Your task to perform on an android device: toggle translation in the chrome app Image 0: 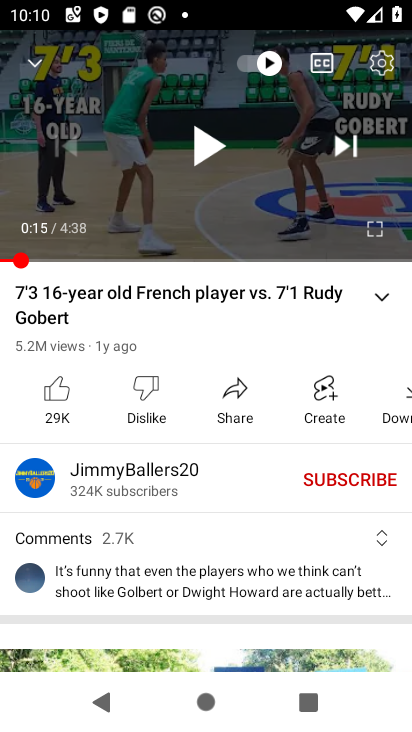
Step 0: press home button
Your task to perform on an android device: toggle translation in the chrome app Image 1: 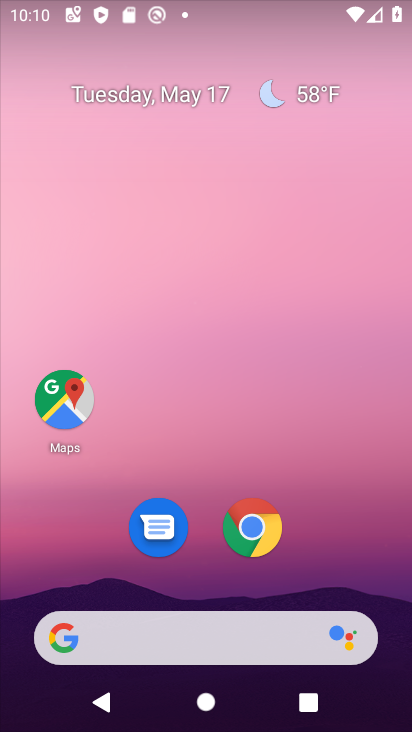
Step 1: click (270, 539)
Your task to perform on an android device: toggle translation in the chrome app Image 2: 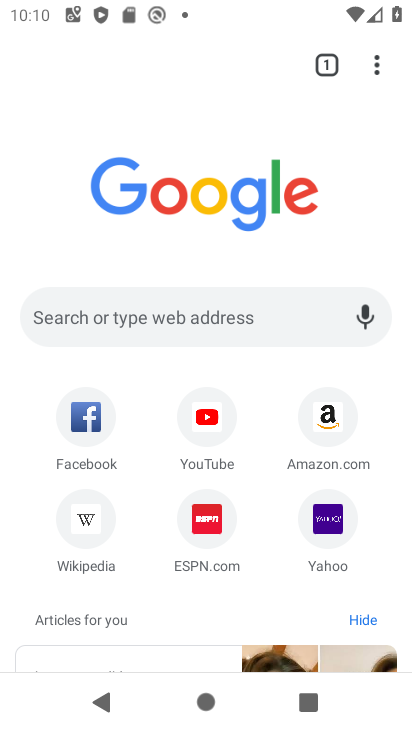
Step 2: click (382, 63)
Your task to perform on an android device: toggle translation in the chrome app Image 3: 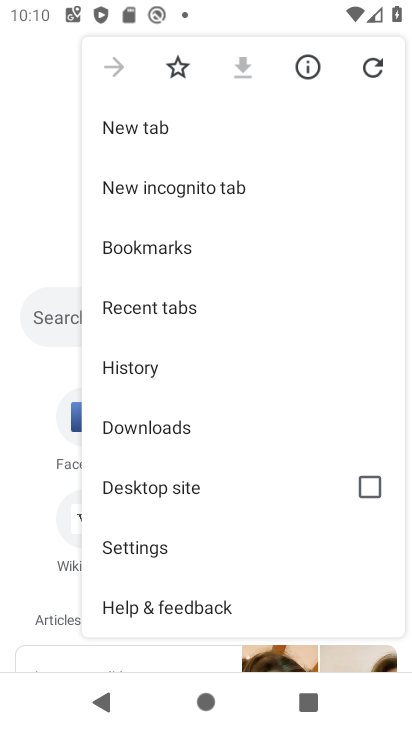
Step 3: drag from (190, 499) to (193, 201)
Your task to perform on an android device: toggle translation in the chrome app Image 4: 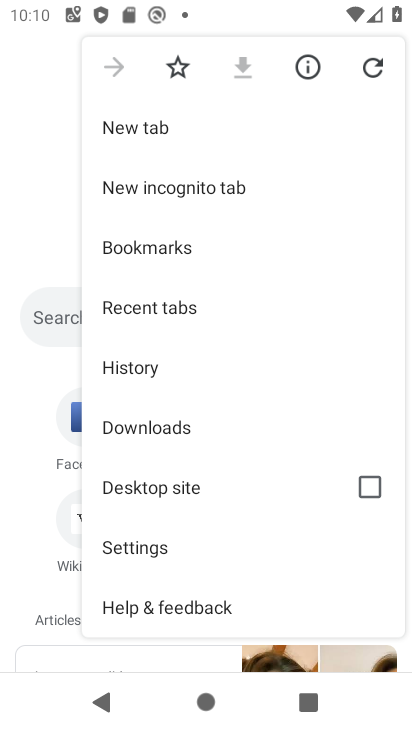
Step 4: click (130, 555)
Your task to perform on an android device: toggle translation in the chrome app Image 5: 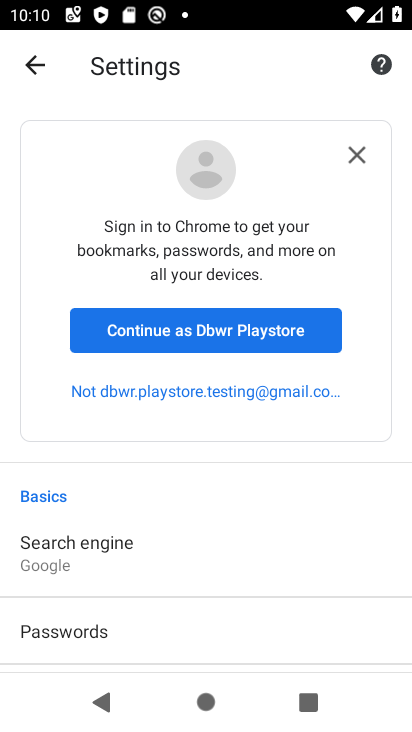
Step 5: drag from (130, 555) to (139, 147)
Your task to perform on an android device: toggle translation in the chrome app Image 6: 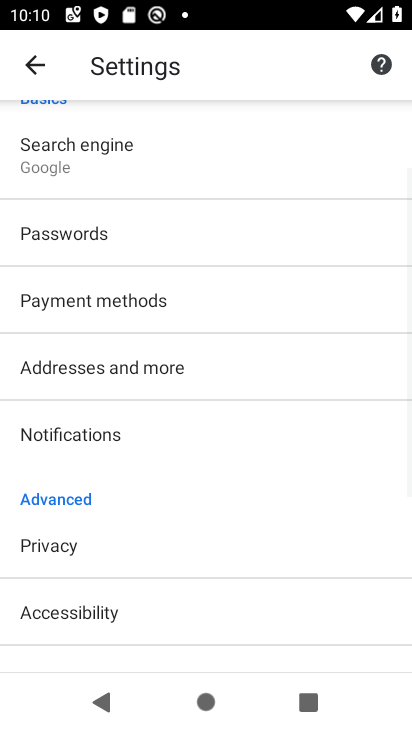
Step 6: drag from (107, 560) to (135, 193)
Your task to perform on an android device: toggle translation in the chrome app Image 7: 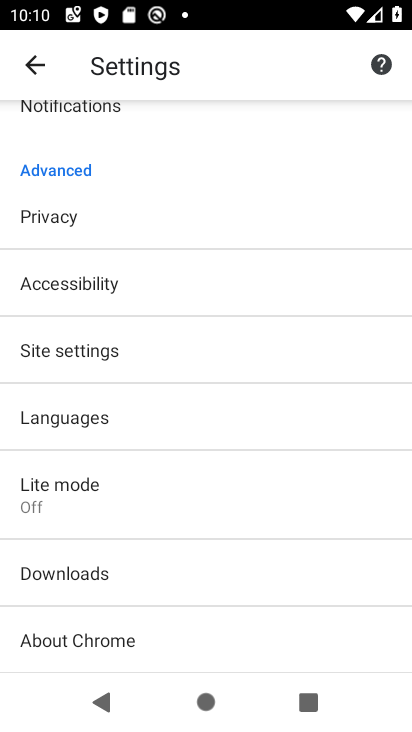
Step 7: click (100, 416)
Your task to perform on an android device: toggle translation in the chrome app Image 8: 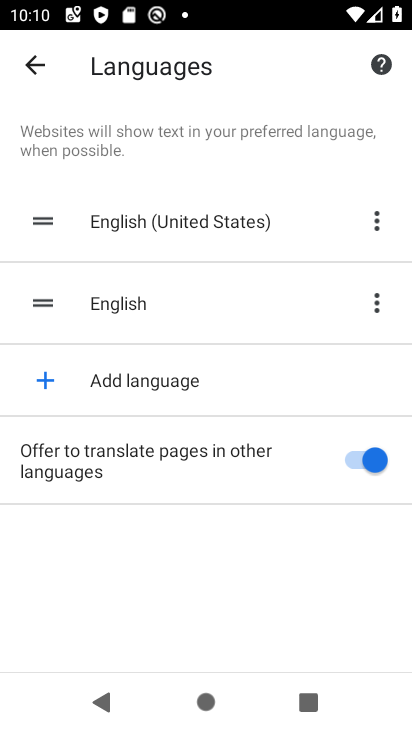
Step 8: click (364, 453)
Your task to perform on an android device: toggle translation in the chrome app Image 9: 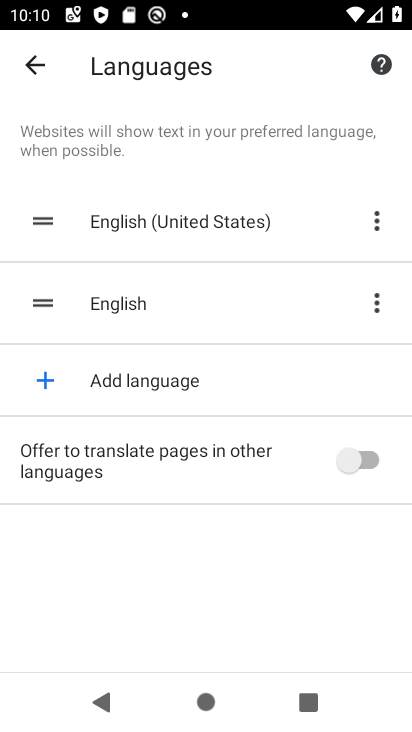
Step 9: task complete